Your task to perform on an android device: change the clock display to analog Image 0: 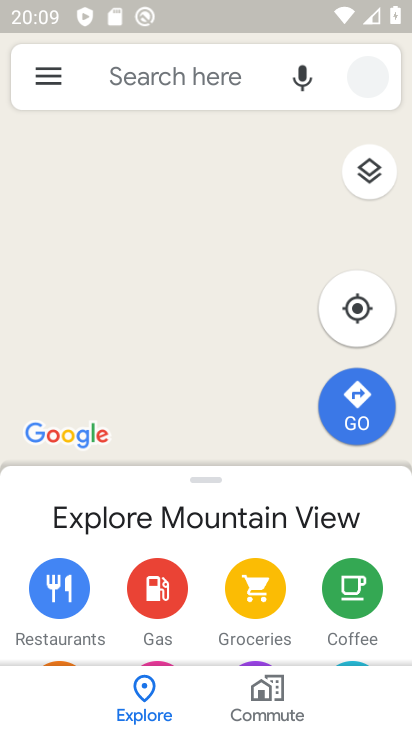
Step 0: press home button
Your task to perform on an android device: change the clock display to analog Image 1: 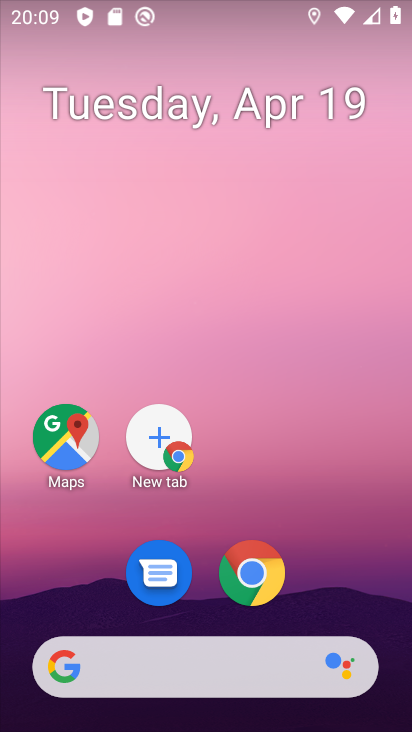
Step 1: click (383, 141)
Your task to perform on an android device: change the clock display to analog Image 2: 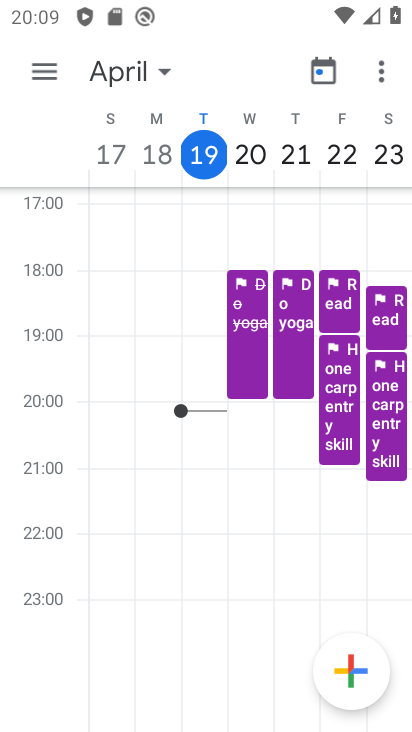
Step 2: drag from (370, 179) to (370, 143)
Your task to perform on an android device: change the clock display to analog Image 3: 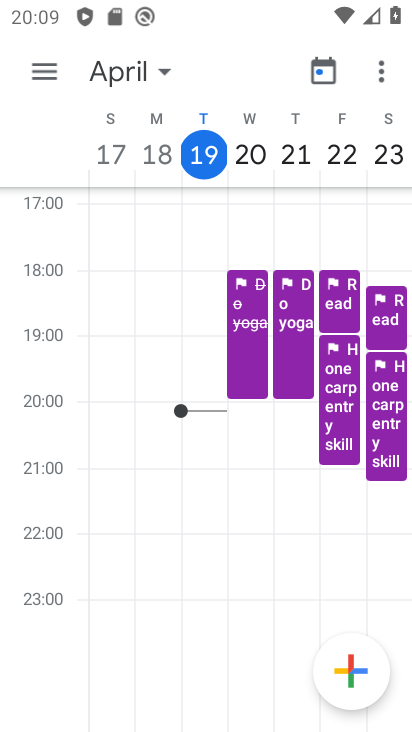
Step 3: press home button
Your task to perform on an android device: change the clock display to analog Image 4: 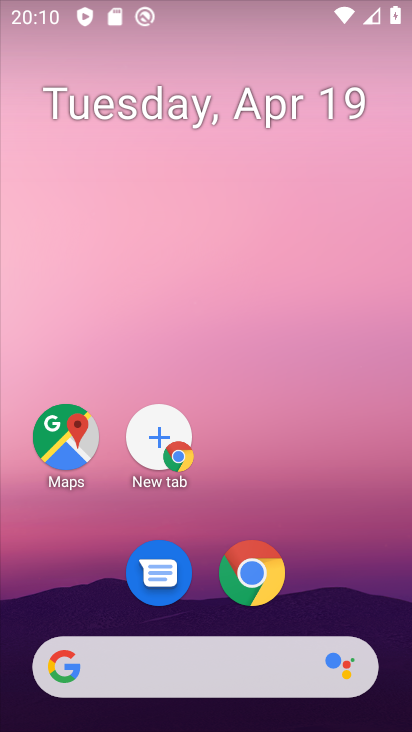
Step 4: drag from (364, 345) to (354, 109)
Your task to perform on an android device: change the clock display to analog Image 5: 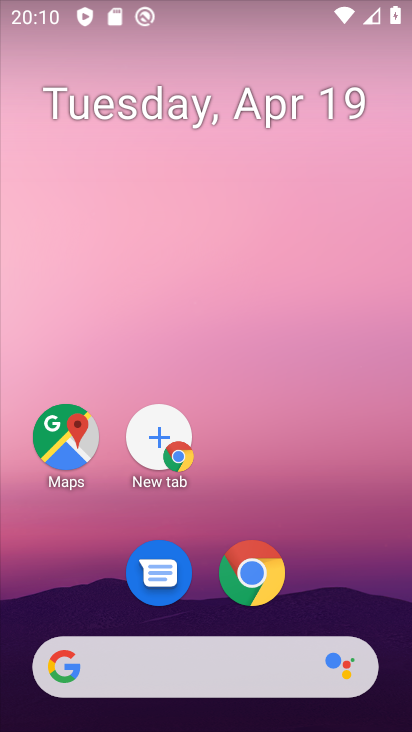
Step 5: drag from (372, 599) to (354, 92)
Your task to perform on an android device: change the clock display to analog Image 6: 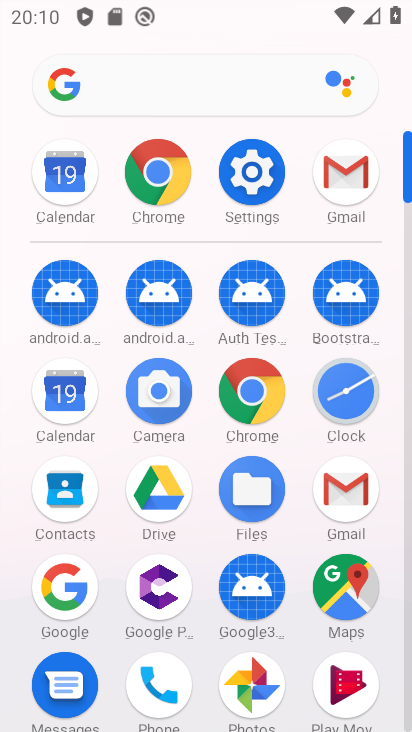
Step 6: click (331, 387)
Your task to perform on an android device: change the clock display to analog Image 7: 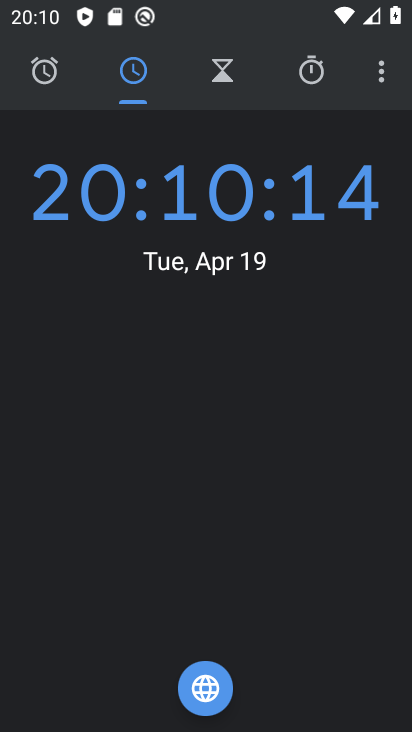
Step 7: click (377, 64)
Your task to perform on an android device: change the clock display to analog Image 8: 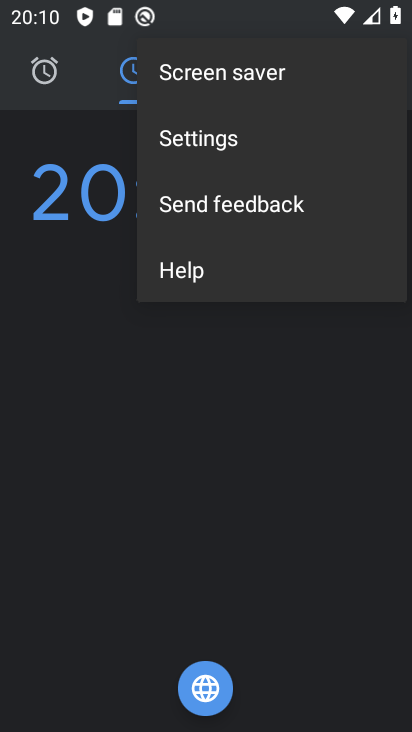
Step 8: click (209, 137)
Your task to perform on an android device: change the clock display to analog Image 9: 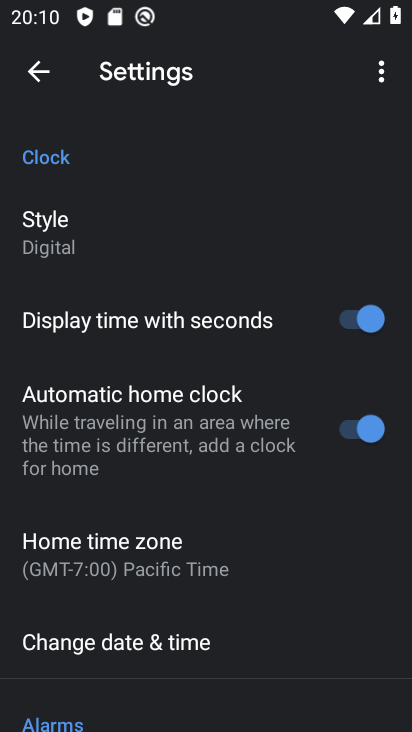
Step 9: click (67, 242)
Your task to perform on an android device: change the clock display to analog Image 10: 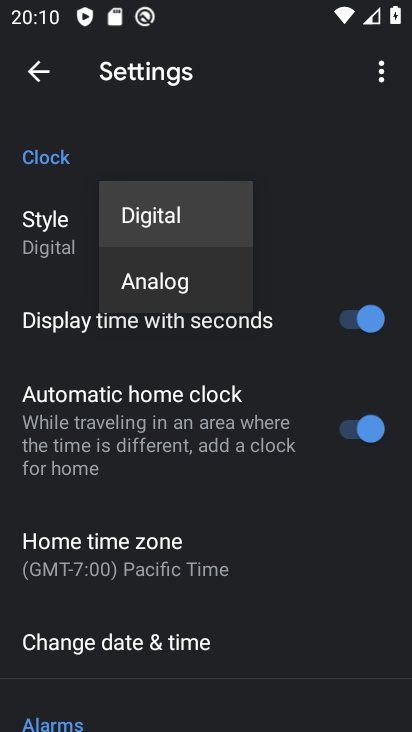
Step 10: click (175, 286)
Your task to perform on an android device: change the clock display to analog Image 11: 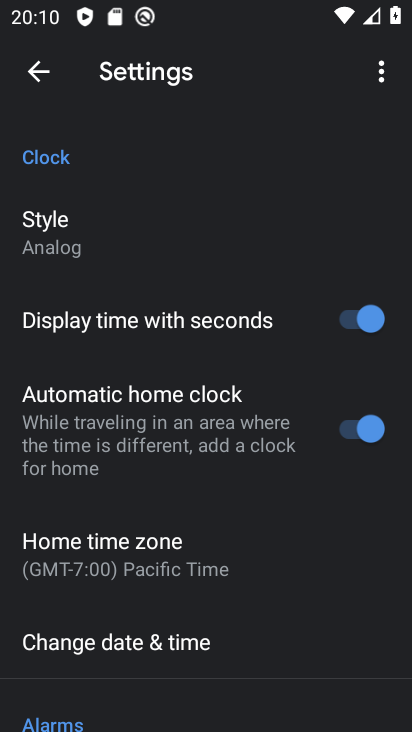
Step 11: task complete